Your task to perform on an android device: Open settings on Google Maps Image 0: 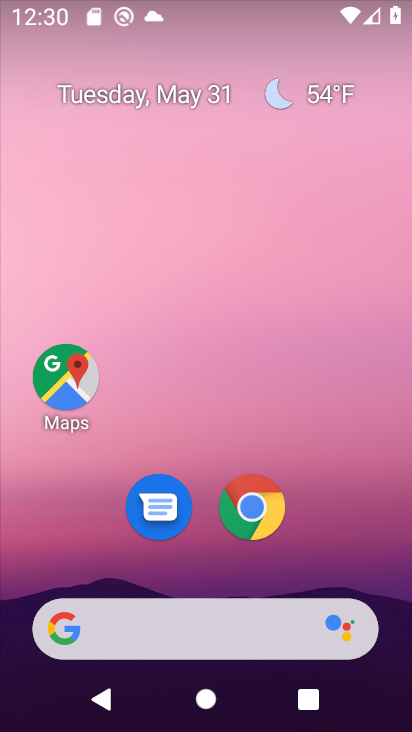
Step 0: drag from (267, 681) to (245, 149)
Your task to perform on an android device: Open settings on Google Maps Image 1: 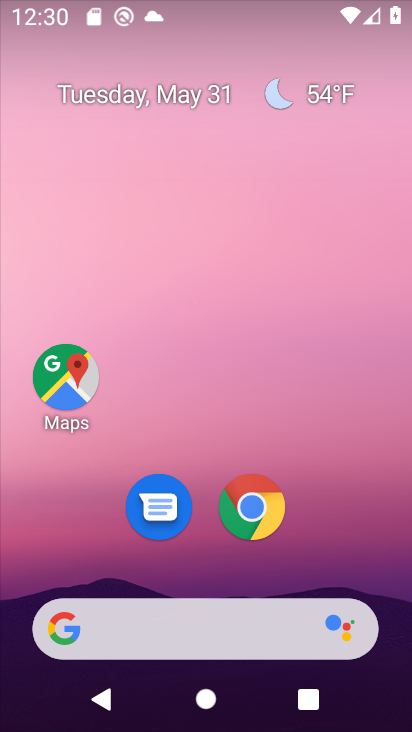
Step 1: drag from (263, 707) to (216, 71)
Your task to perform on an android device: Open settings on Google Maps Image 2: 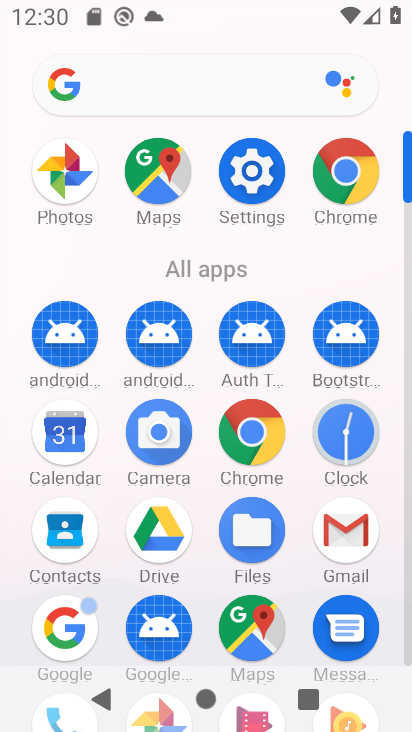
Step 2: click (253, 633)
Your task to perform on an android device: Open settings on Google Maps Image 3: 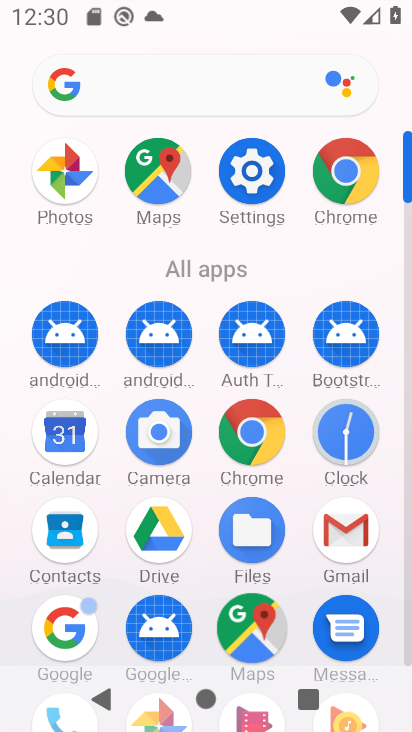
Step 3: click (253, 633)
Your task to perform on an android device: Open settings on Google Maps Image 4: 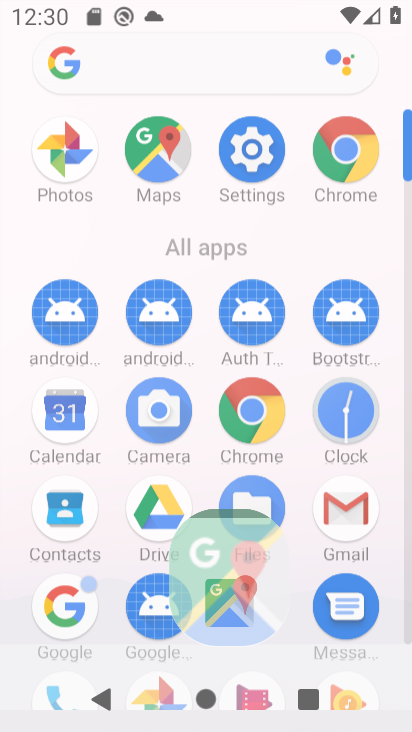
Step 4: click (252, 632)
Your task to perform on an android device: Open settings on Google Maps Image 5: 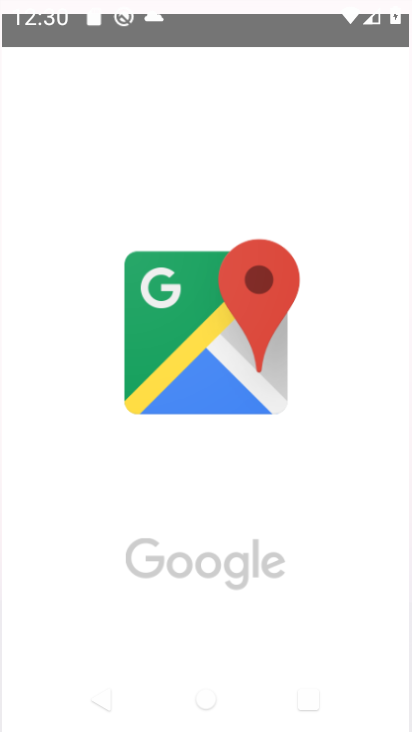
Step 5: click (253, 631)
Your task to perform on an android device: Open settings on Google Maps Image 6: 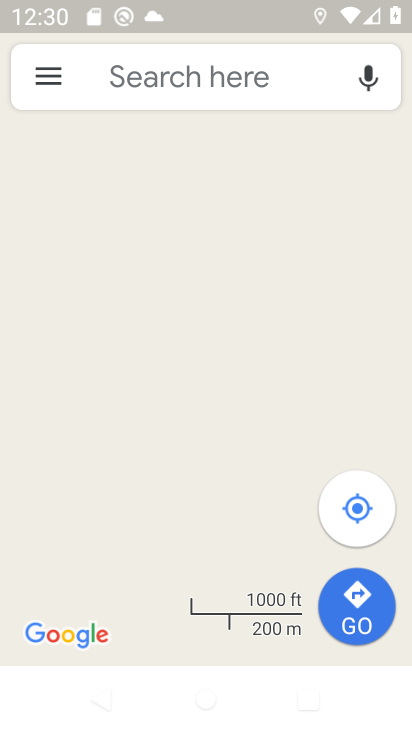
Step 6: task complete